Your task to perform on an android device: Open Amazon Image 0: 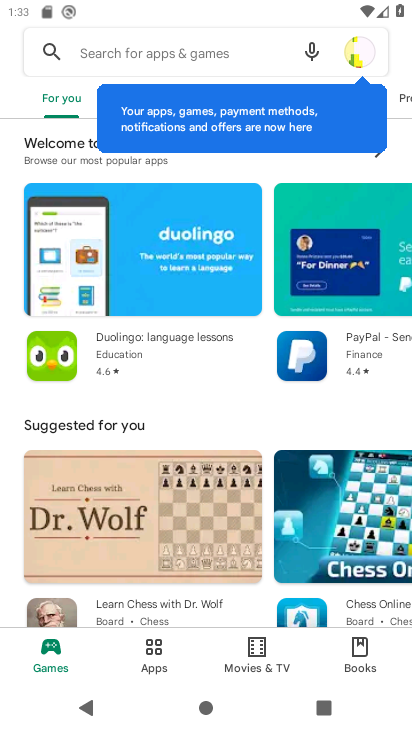
Step 0: press home button
Your task to perform on an android device: Open Amazon Image 1: 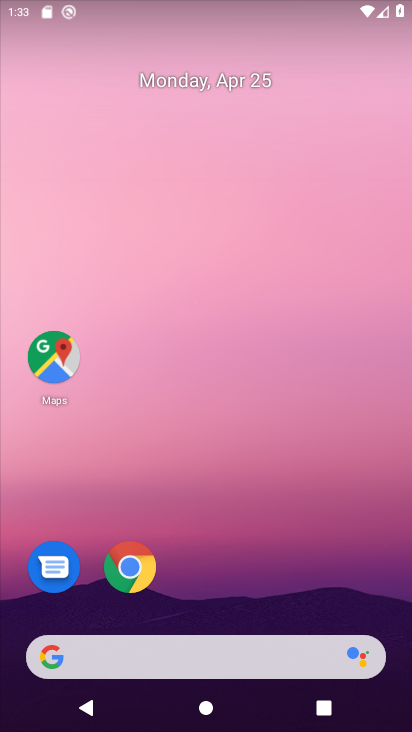
Step 1: drag from (366, 613) to (335, 171)
Your task to perform on an android device: Open Amazon Image 2: 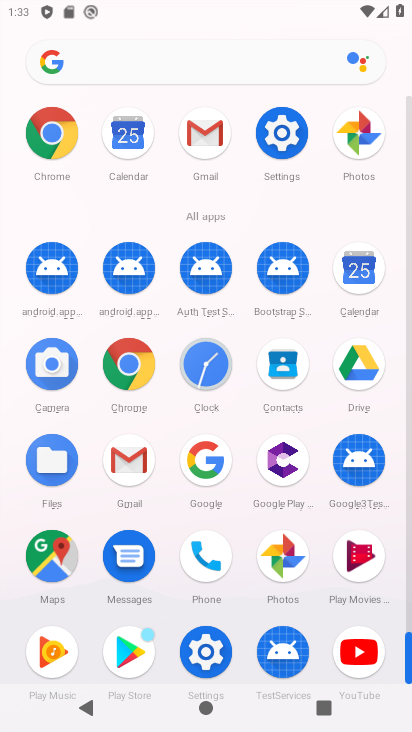
Step 2: click (132, 361)
Your task to perform on an android device: Open Amazon Image 3: 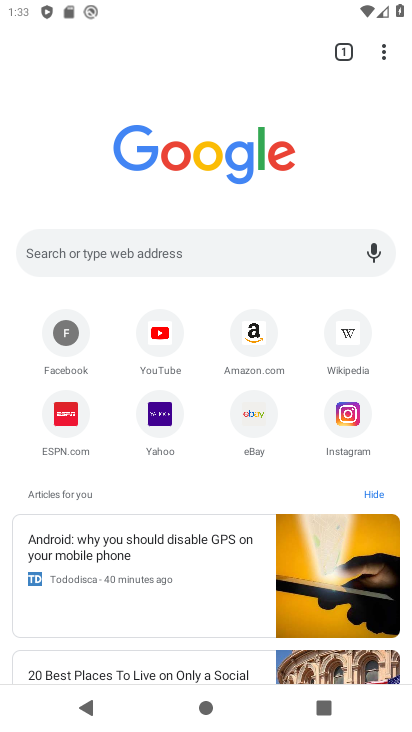
Step 3: click (252, 326)
Your task to perform on an android device: Open Amazon Image 4: 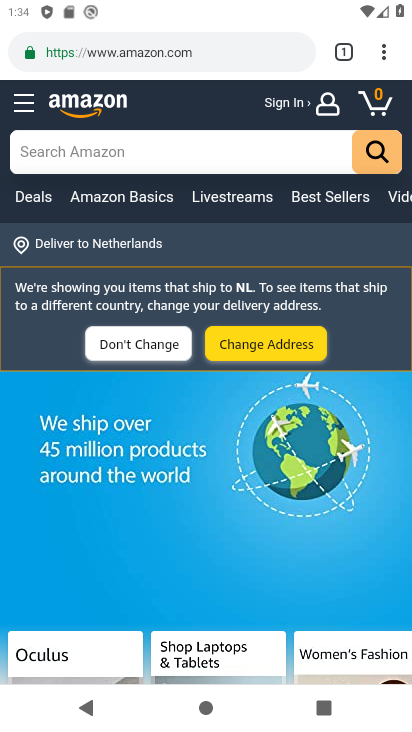
Step 4: task complete